Your task to perform on an android device: What's the weather going to be this weekend? Image 0: 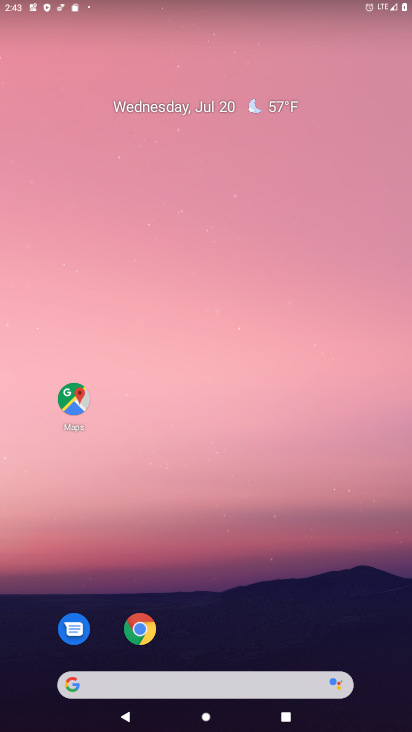
Step 0: click (274, 110)
Your task to perform on an android device: What's the weather going to be this weekend? Image 1: 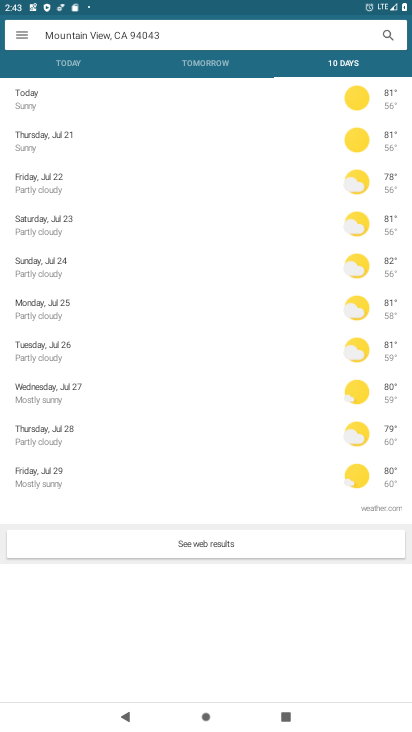
Step 1: click (350, 63)
Your task to perform on an android device: What's the weather going to be this weekend? Image 2: 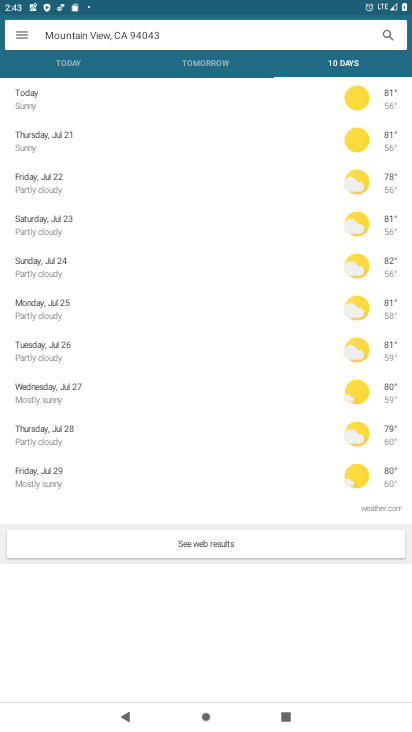
Step 2: task complete